Your task to perform on an android device: check the backup settings in the google photos Image 0: 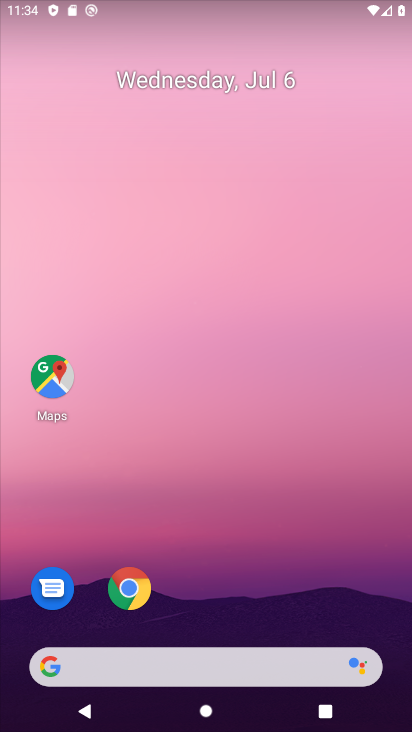
Step 0: drag from (172, 593) to (188, 296)
Your task to perform on an android device: check the backup settings in the google photos Image 1: 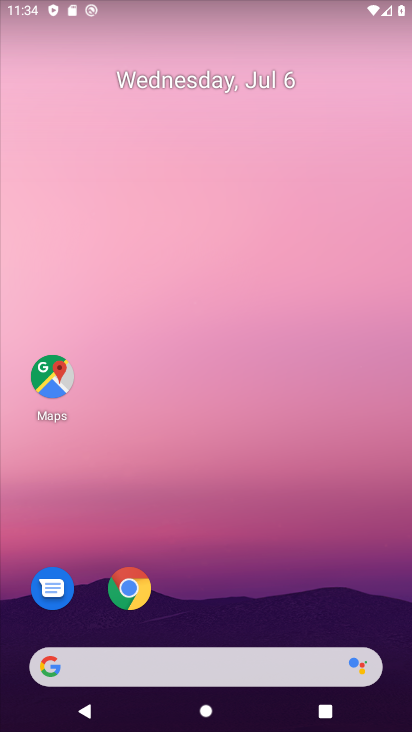
Step 1: drag from (202, 609) to (222, 111)
Your task to perform on an android device: check the backup settings in the google photos Image 2: 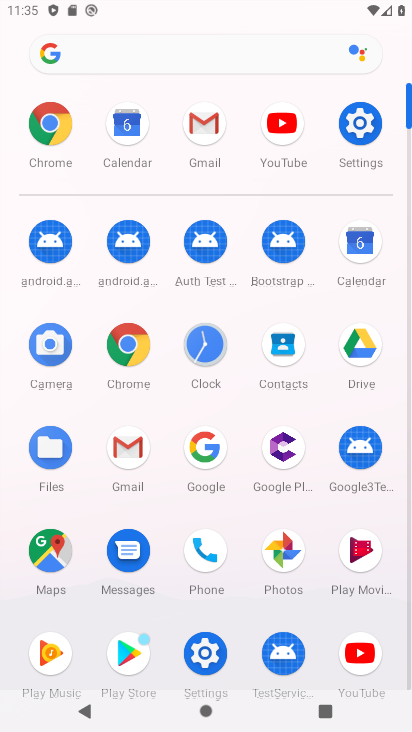
Step 2: drag from (255, 625) to (256, 272)
Your task to perform on an android device: check the backup settings in the google photos Image 3: 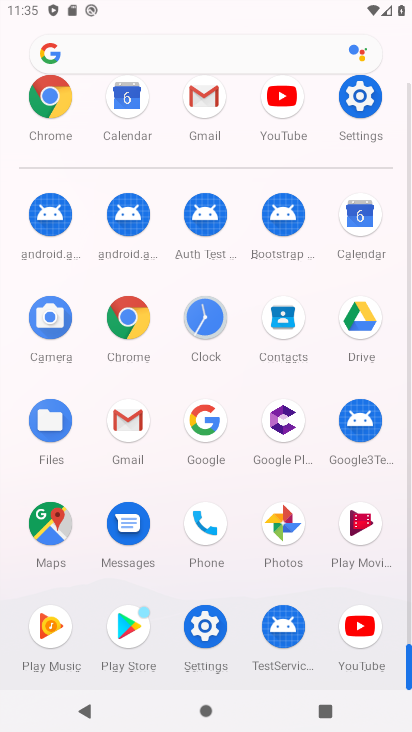
Step 3: click (278, 528)
Your task to perform on an android device: check the backup settings in the google photos Image 4: 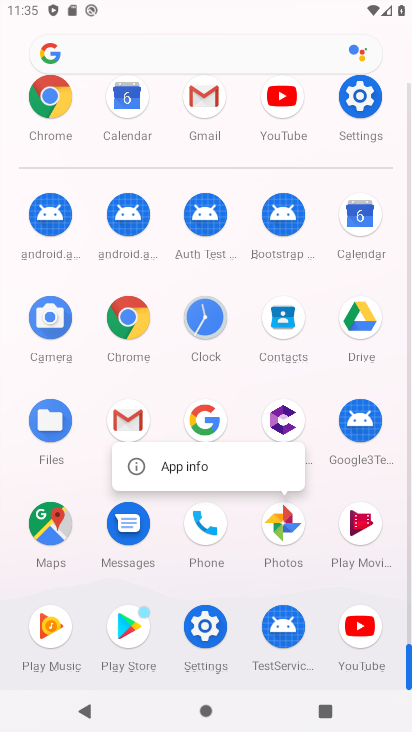
Step 4: click (162, 458)
Your task to perform on an android device: check the backup settings in the google photos Image 5: 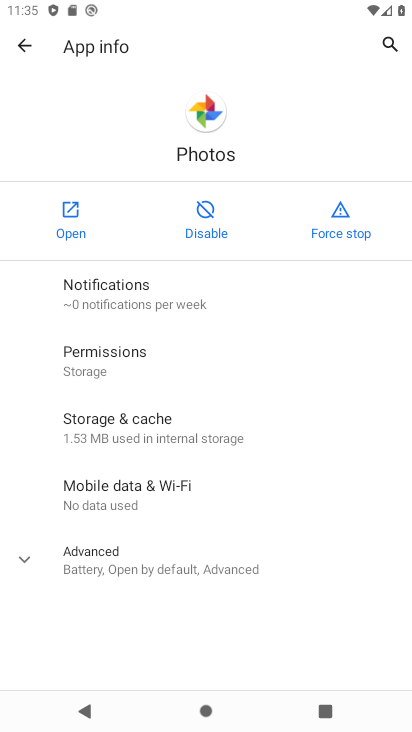
Step 5: click (53, 192)
Your task to perform on an android device: check the backup settings in the google photos Image 6: 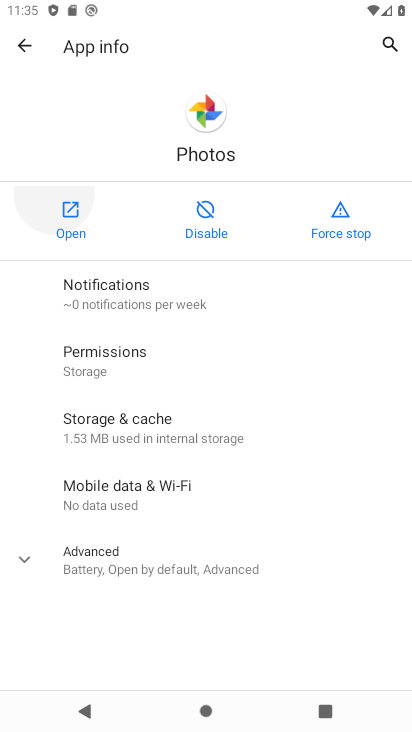
Step 6: click (60, 195)
Your task to perform on an android device: check the backup settings in the google photos Image 7: 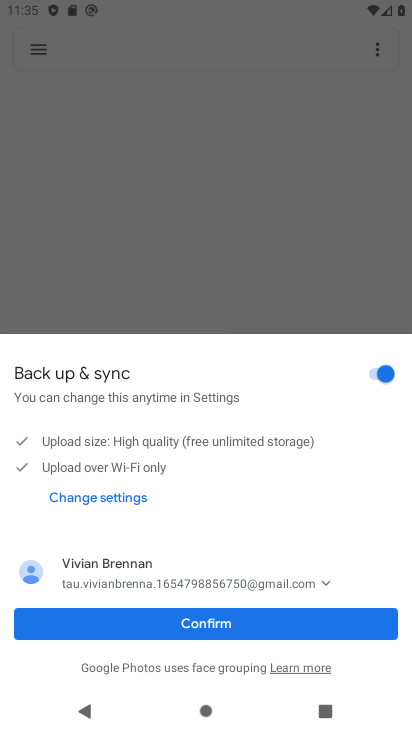
Step 7: click (229, 629)
Your task to perform on an android device: check the backup settings in the google photos Image 8: 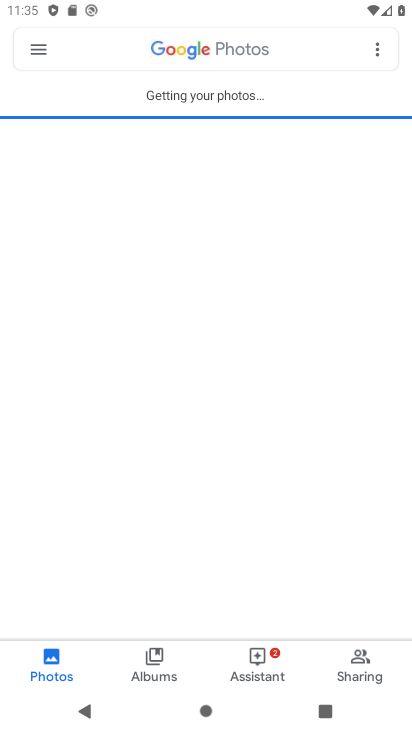
Step 8: click (26, 55)
Your task to perform on an android device: check the backup settings in the google photos Image 9: 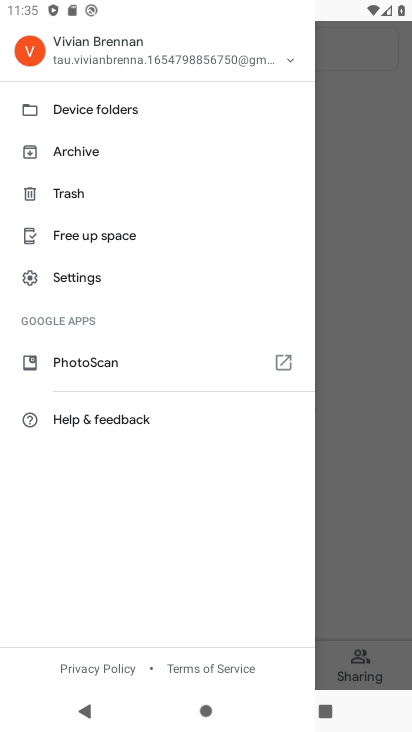
Step 9: click (90, 284)
Your task to perform on an android device: check the backup settings in the google photos Image 10: 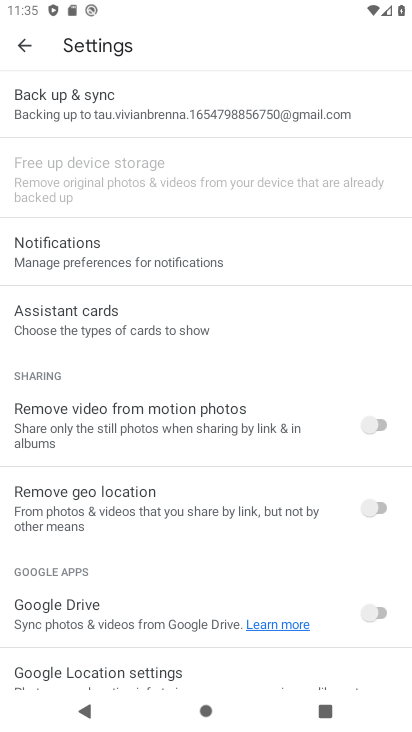
Step 10: click (190, 115)
Your task to perform on an android device: check the backup settings in the google photos Image 11: 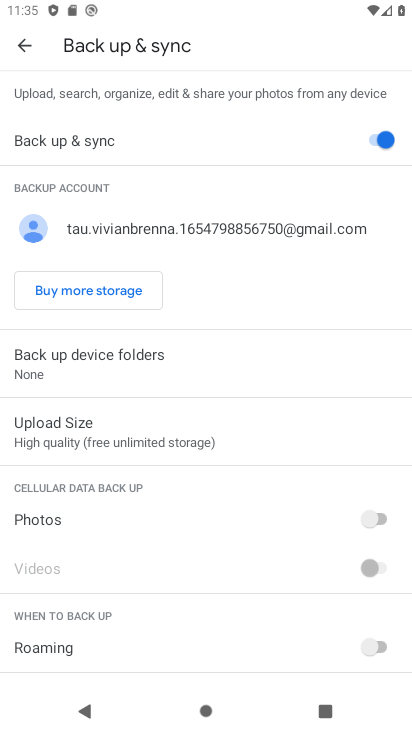
Step 11: task complete